Your task to perform on an android device: Go to Android settings Image 0: 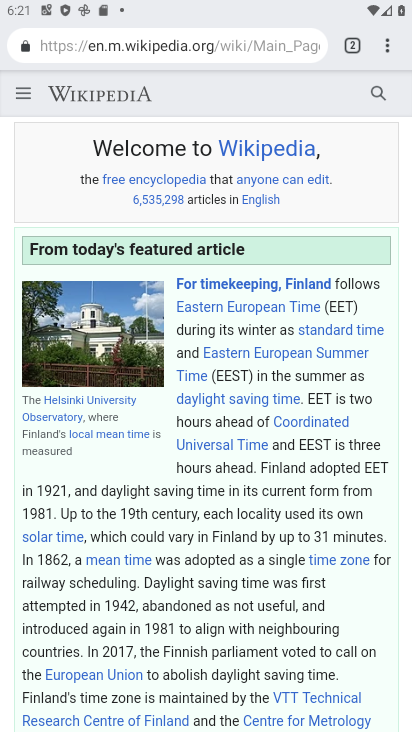
Step 0: press back button
Your task to perform on an android device: Go to Android settings Image 1: 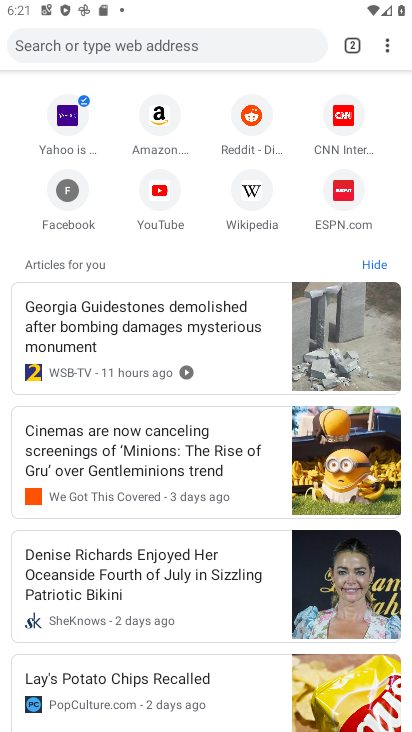
Step 1: press home button
Your task to perform on an android device: Go to Android settings Image 2: 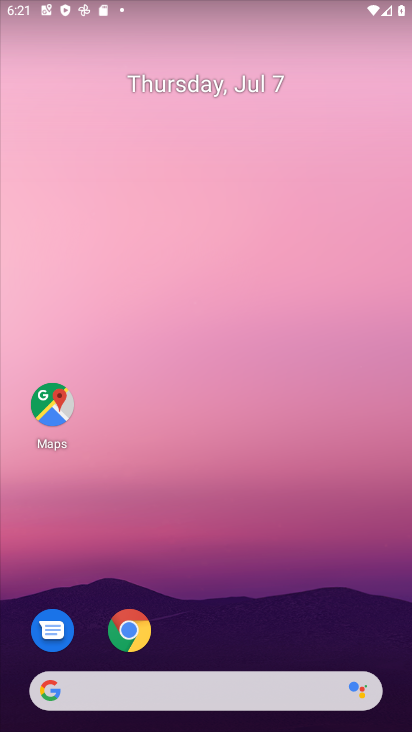
Step 2: drag from (211, 212) to (213, 23)
Your task to perform on an android device: Go to Android settings Image 3: 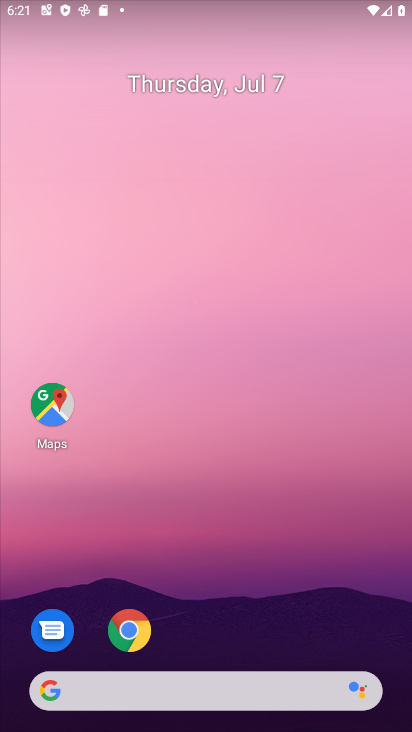
Step 3: drag from (206, 439) to (122, 38)
Your task to perform on an android device: Go to Android settings Image 4: 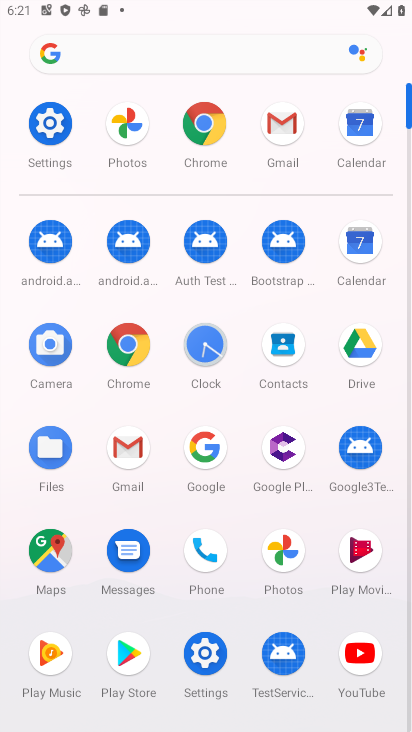
Step 4: click (50, 135)
Your task to perform on an android device: Go to Android settings Image 5: 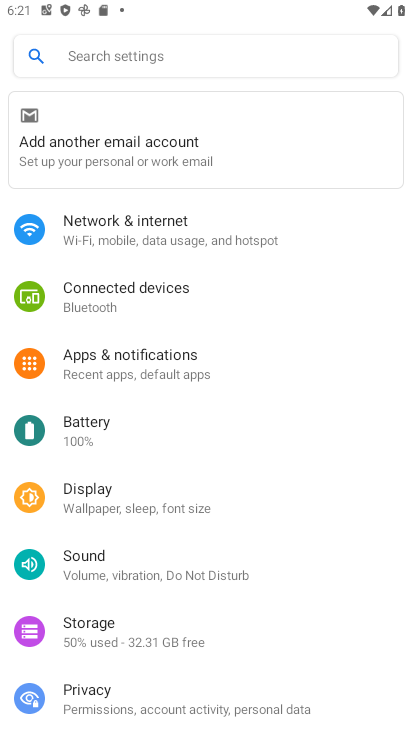
Step 5: drag from (138, 470) to (188, 65)
Your task to perform on an android device: Go to Android settings Image 6: 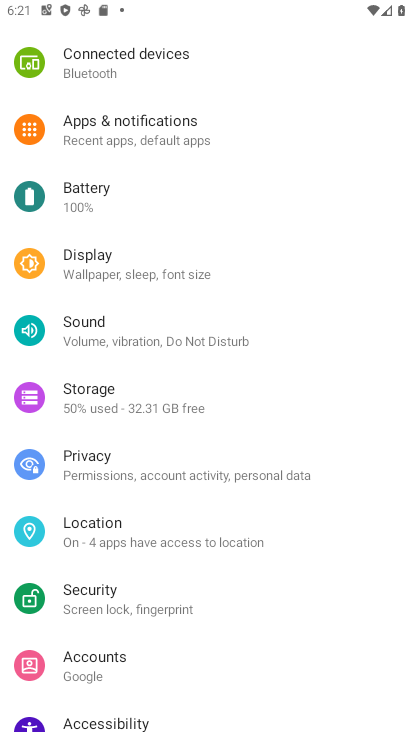
Step 6: drag from (135, 519) to (136, 261)
Your task to perform on an android device: Go to Android settings Image 7: 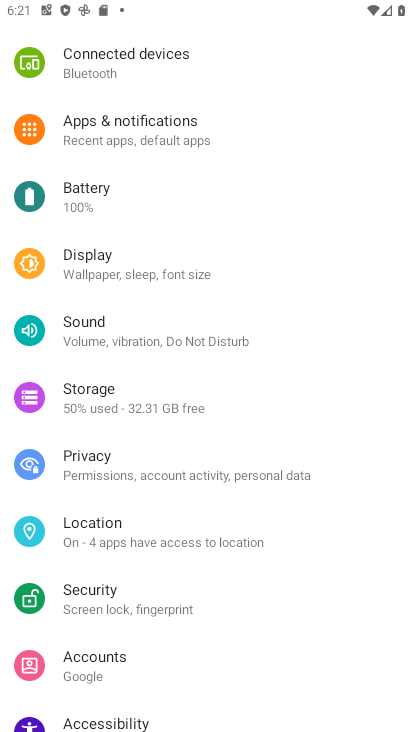
Step 7: drag from (131, 576) to (194, 267)
Your task to perform on an android device: Go to Android settings Image 8: 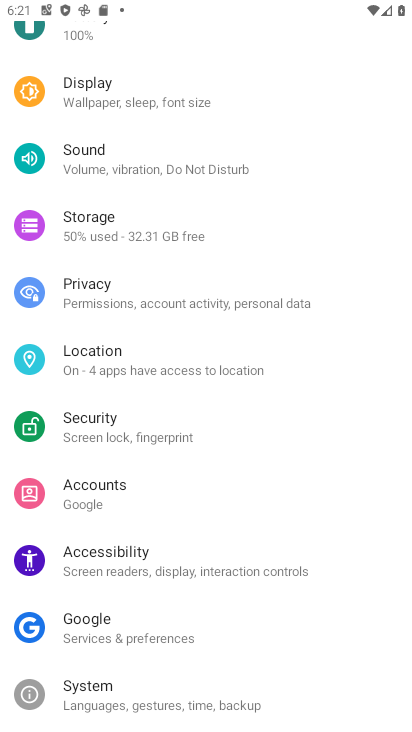
Step 8: drag from (134, 589) to (134, 346)
Your task to perform on an android device: Go to Android settings Image 9: 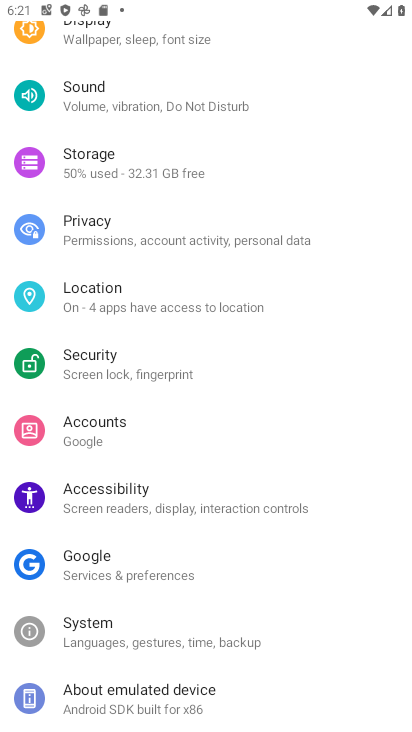
Step 9: click (132, 684)
Your task to perform on an android device: Go to Android settings Image 10: 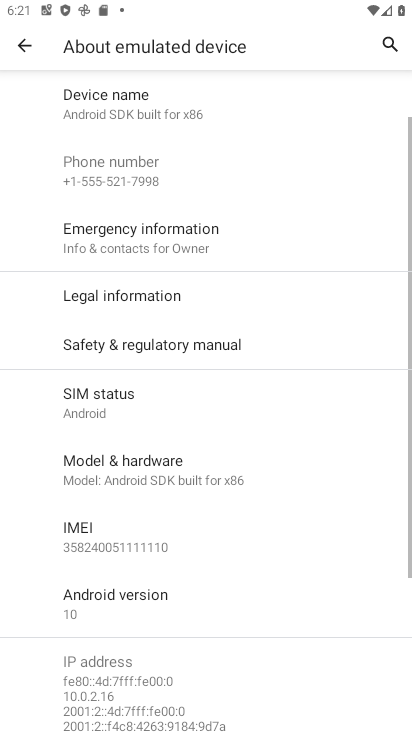
Step 10: click (100, 402)
Your task to perform on an android device: Go to Android settings Image 11: 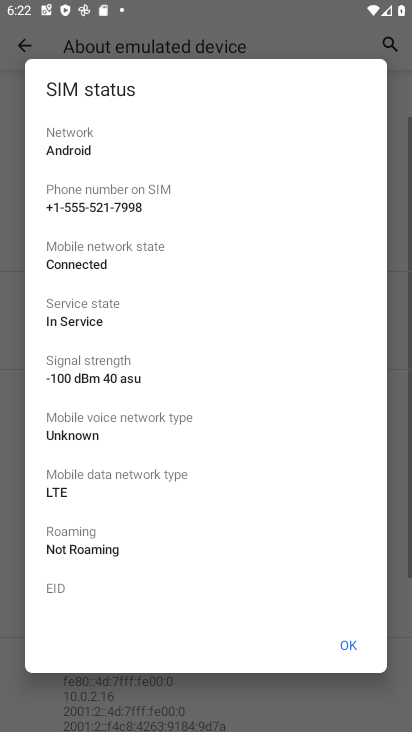
Step 11: task complete